Your task to perform on an android device: turn on showing notifications on the lock screen Image 0: 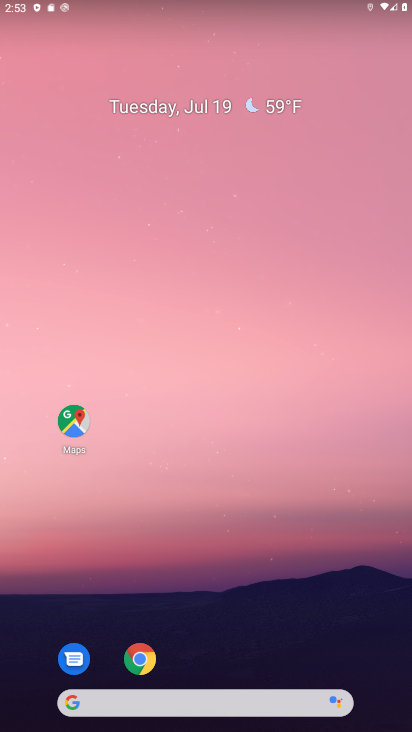
Step 0: press home button
Your task to perform on an android device: turn on showing notifications on the lock screen Image 1: 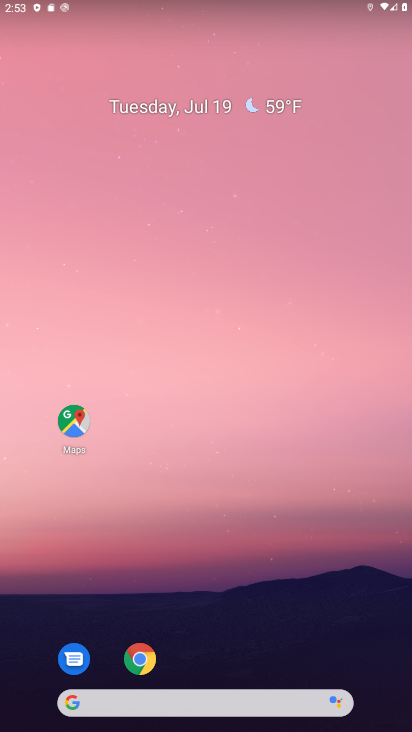
Step 1: drag from (220, 703) to (253, 105)
Your task to perform on an android device: turn on showing notifications on the lock screen Image 2: 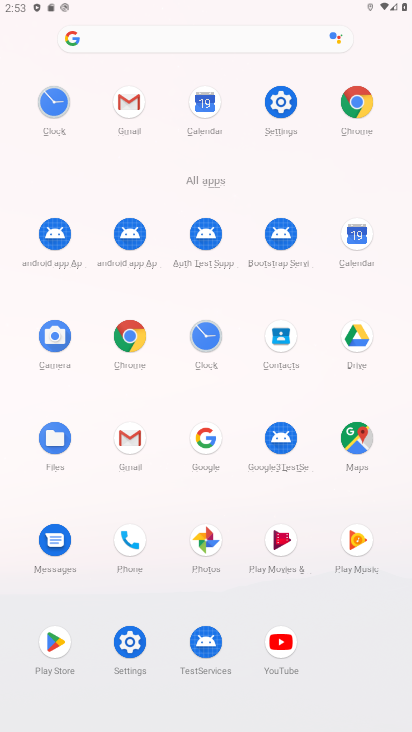
Step 2: click (281, 102)
Your task to perform on an android device: turn on showing notifications on the lock screen Image 3: 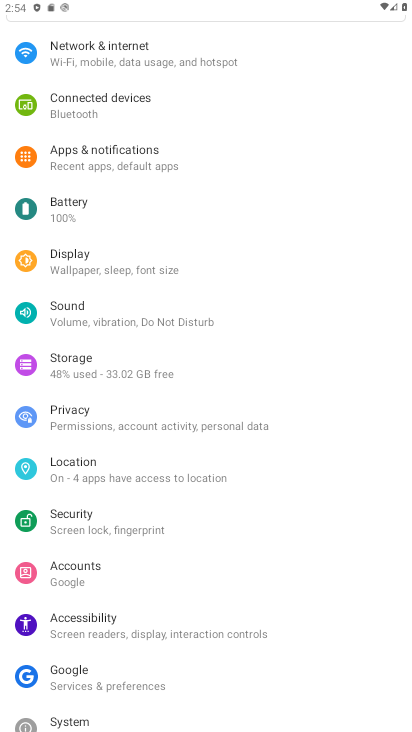
Step 3: click (107, 156)
Your task to perform on an android device: turn on showing notifications on the lock screen Image 4: 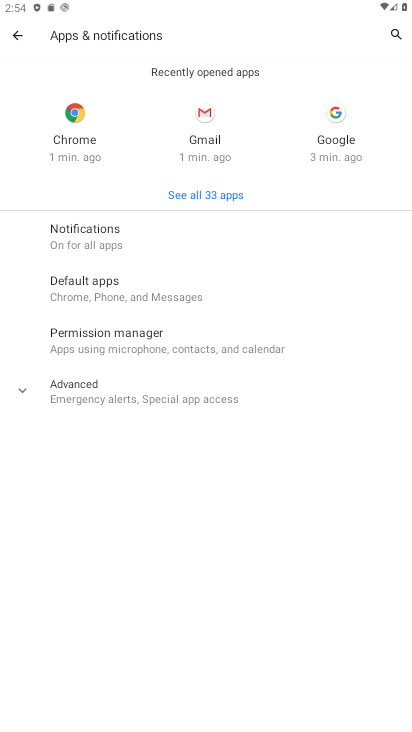
Step 4: click (86, 238)
Your task to perform on an android device: turn on showing notifications on the lock screen Image 5: 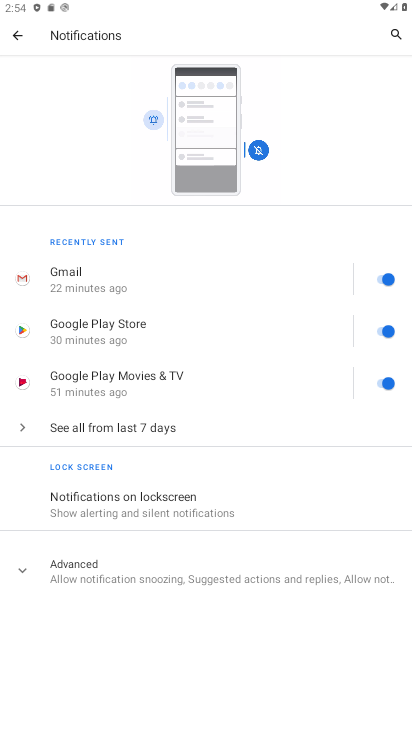
Step 5: click (84, 506)
Your task to perform on an android device: turn on showing notifications on the lock screen Image 6: 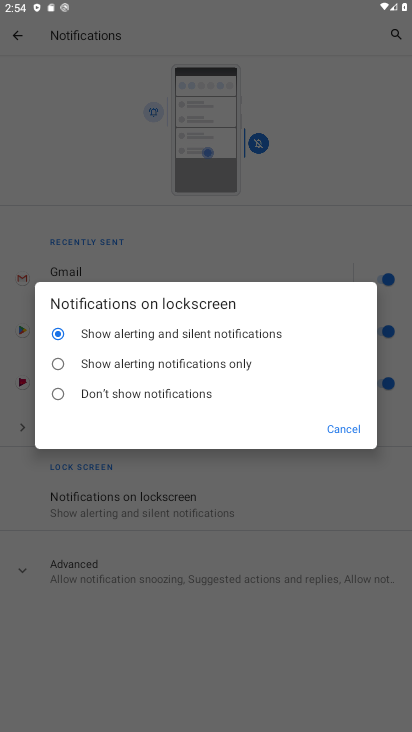
Step 6: click (58, 333)
Your task to perform on an android device: turn on showing notifications on the lock screen Image 7: 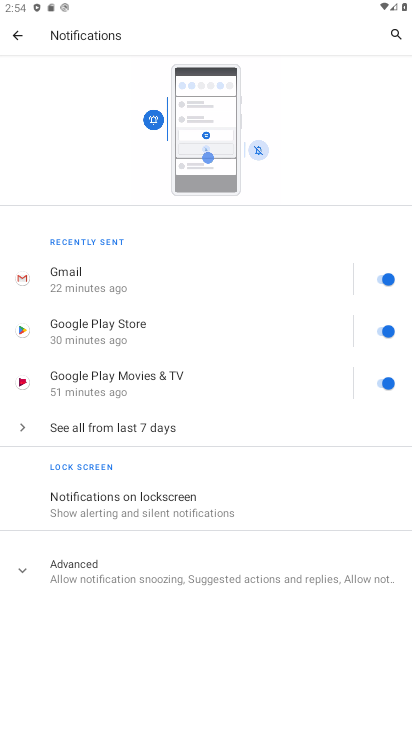
Step 7: task complete